Your task to perform on an android device: Open Chrome and go to settings Image 0: 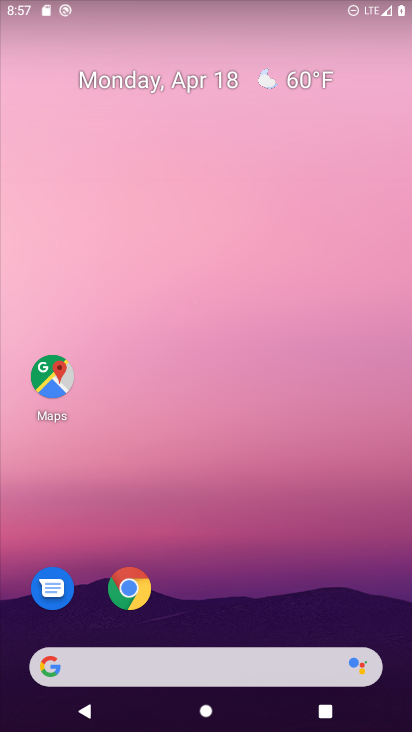
Step 0: click (127, 588)
Your task to perform on an android device: Open Chrome and go to settings Image 1: 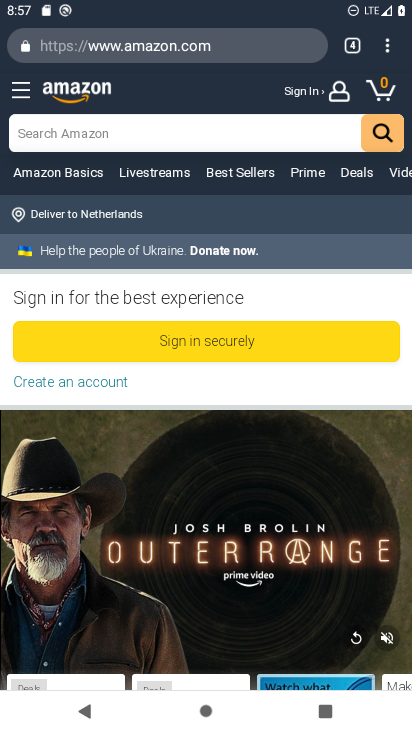
Step 1: click (391, 49)
Your task to perform on an android device: Open Chrome and go to settings Image 2: 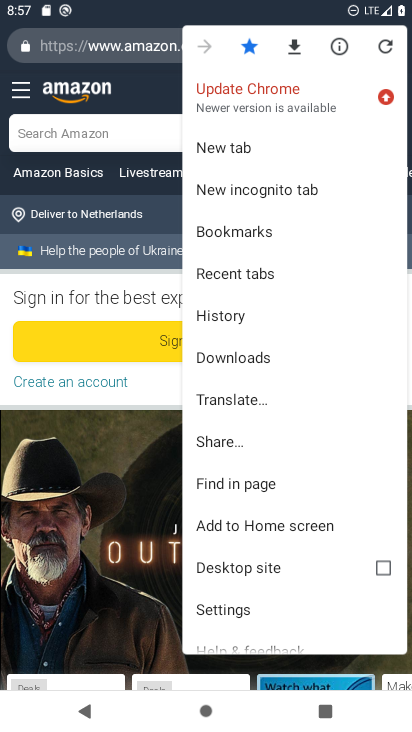
Step 2: drag from (319, 576) to (340, 308)
Your task to perform on an android device: Open Chrome and go to settings Image 3: 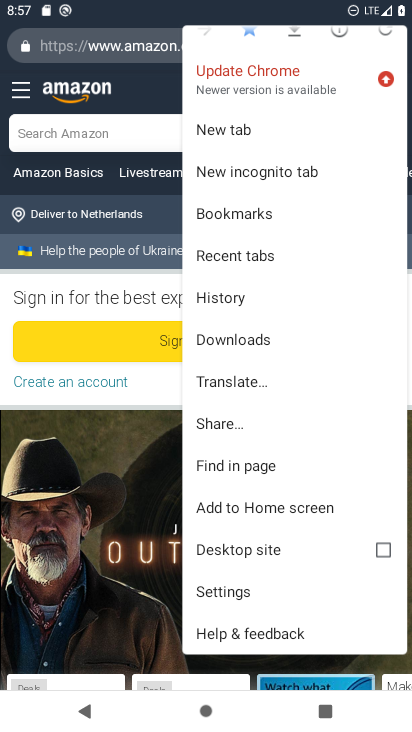
Step 3: click (221, 589)
Your task to perform on an android device: Open Chrome and go to settings Image 4: 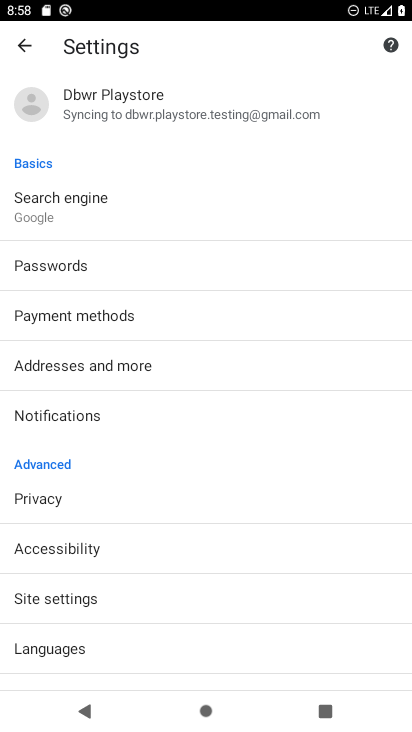
Step 4: task complete